Your task to perform on an android device: Open the calendar and show me this week's events Image 0: 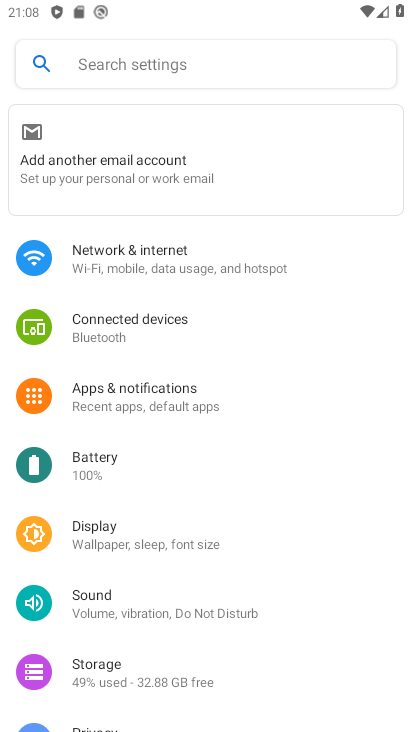
Step 0: press home button
Your task to perform on an android device: Open the calendar and show me this week's events Image 1: 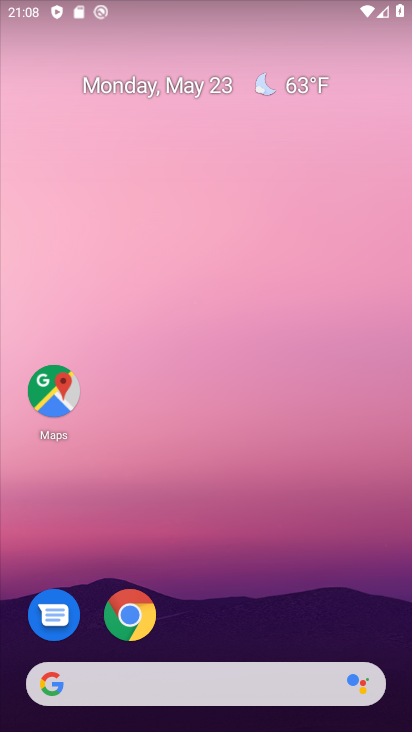
Step 1: drag from (294, 616) to (352, 123)
Your task to perform on an android device: Open the calendar and show me this week's events Image 2: 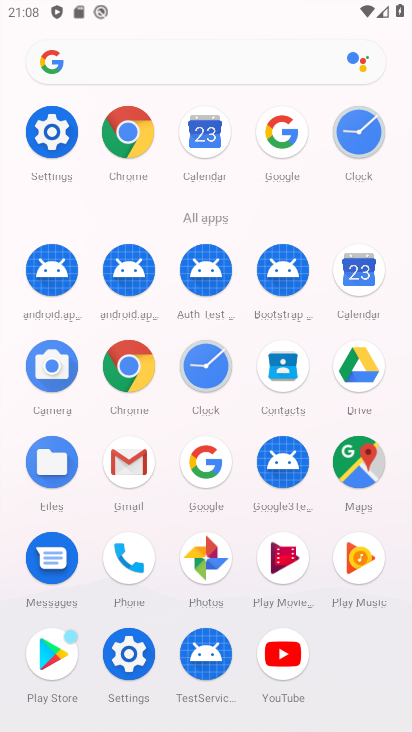
Step 2: click (359, 279)
Your task to perform on an android device: Open the calendar and show me this week's events Image 3: 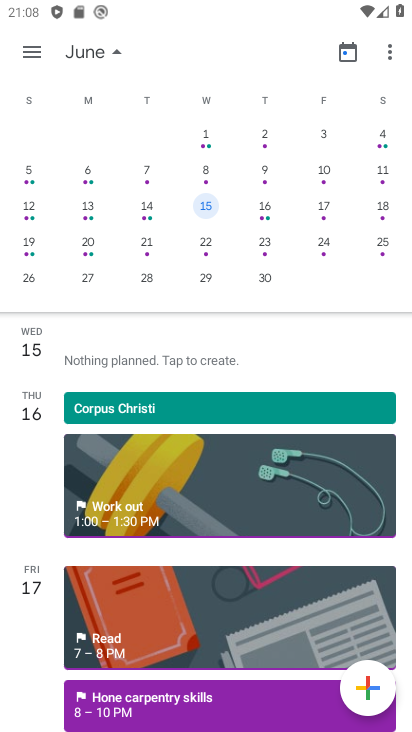
Step 3: drag from (9, 294) to (401, 275)
Your task to perform on an android device: Open the calendar and show me this week's events Image 4: 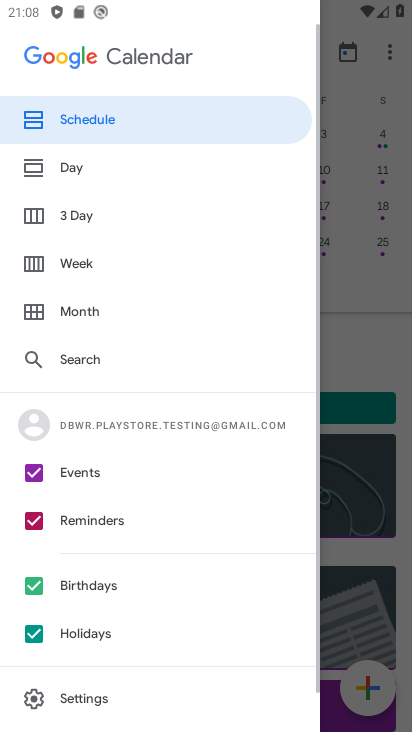
Step 4: click (370, 257)
Your task to perform on an android device: Open the calendar and show me this week's events Image 5: 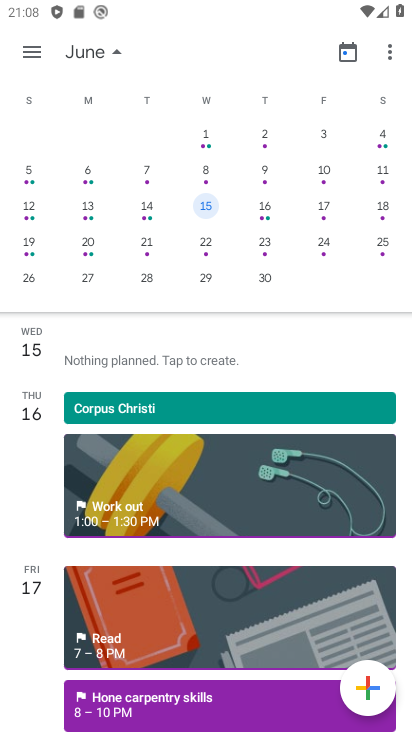
Step 5: drag from (60, 280) to (411, 269)
Your task to perform on an android device: Open the calendar and show me this week's events Image 6: 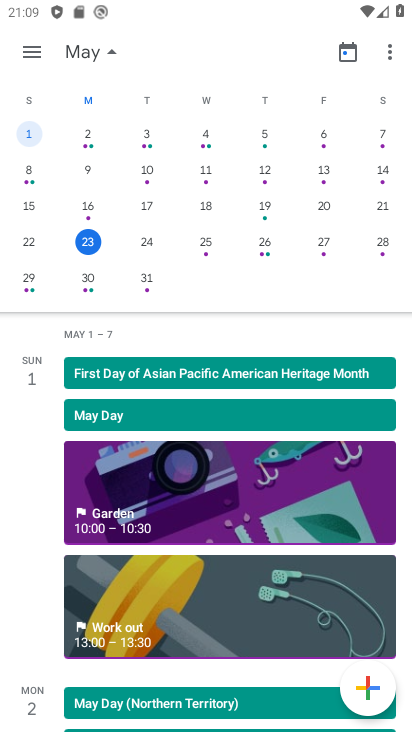
Step 6: click (204, 247)
Your task to perform on an android device: Open the calendar and show me this week's events Image 7: 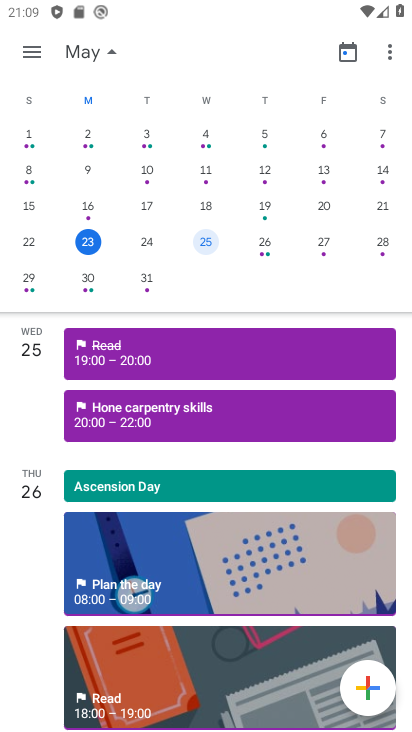
Step 7: task complete